Your task to perform on an android device: set the stopwatch Image 0: 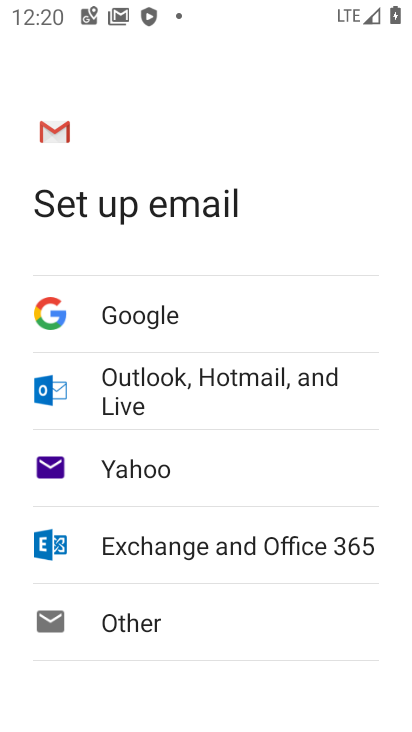
Step 0: press home button
Your task to perform on an android device: set the stopwatch Image 1: 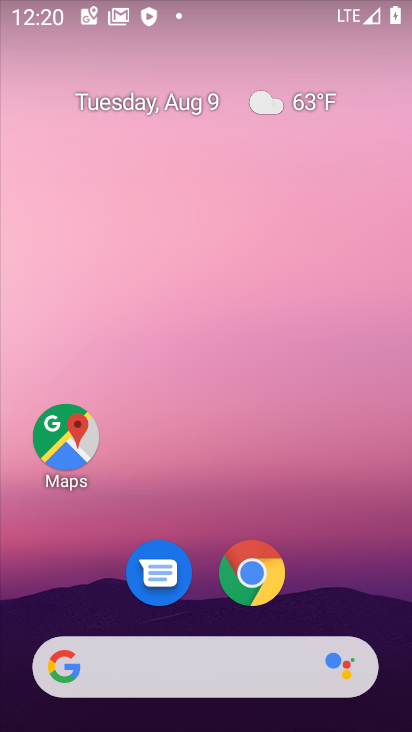
Step 1: drag from (154, 594) to (144, 230)
Your task to perform on an android device: set the stopwatch Image 2: 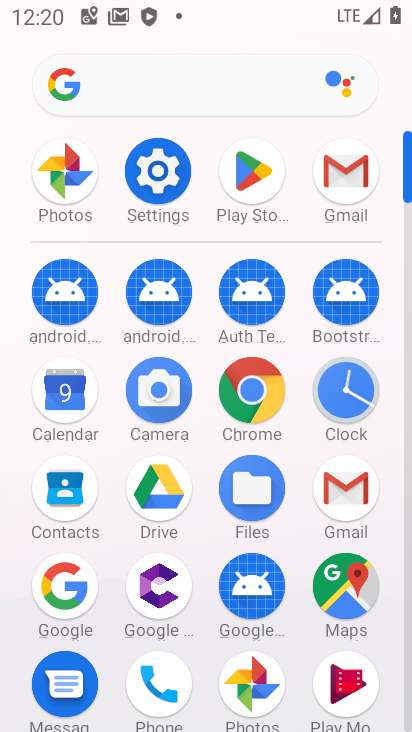
Step 2: click (342, 402)
Your task to perform on an android device: set the stopwatch Image 3: 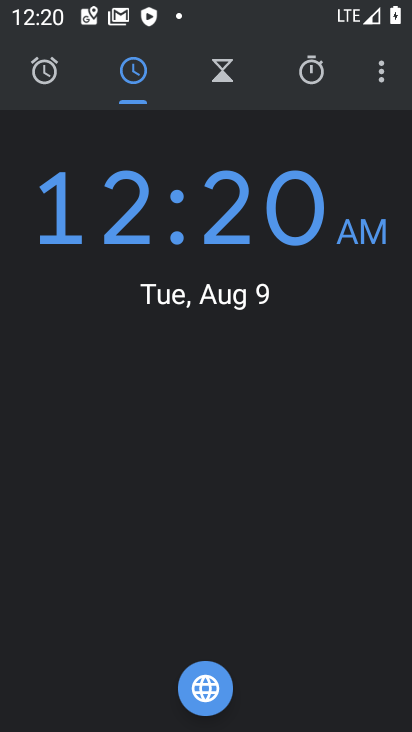
Step 3: click (306, 83)
Your task to perform on an android device: set the stopwatch Image 4: 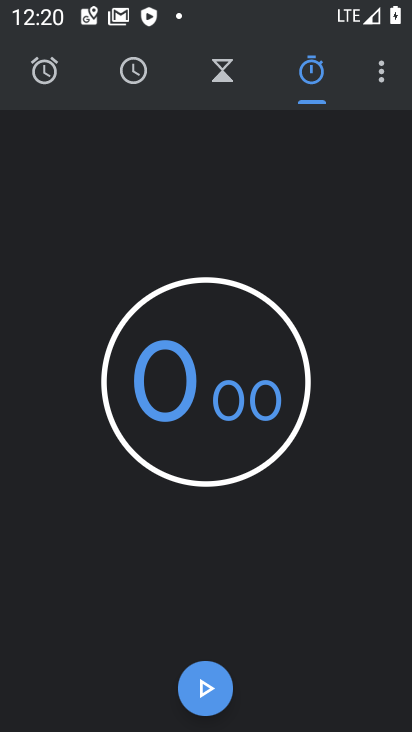
Step 4: click (210, 684)
Your task to perform on an android device: set the stopwatch Image 5: 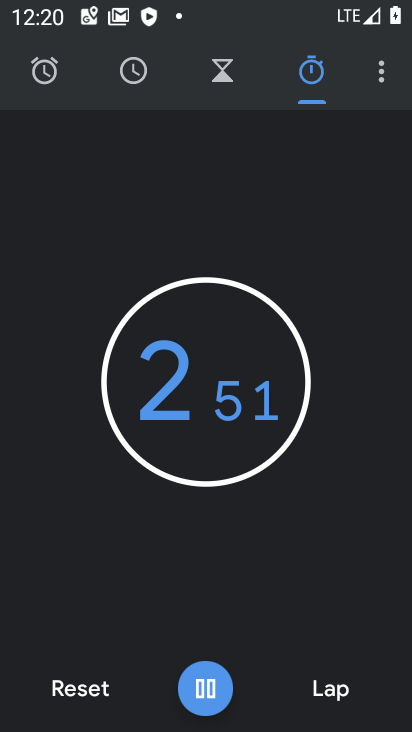
Step 5: click (205, 692)
Your task to perform on an android device: set the stopwatch Image 6: 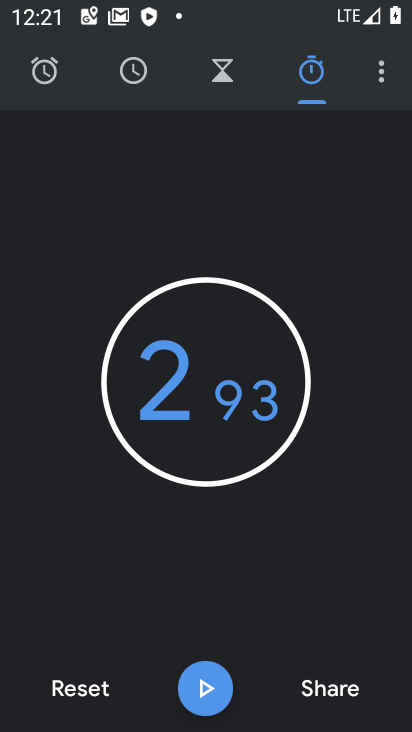
Step 6: task complete